Your task to perform on an android device: toggle notification dots Image 0: 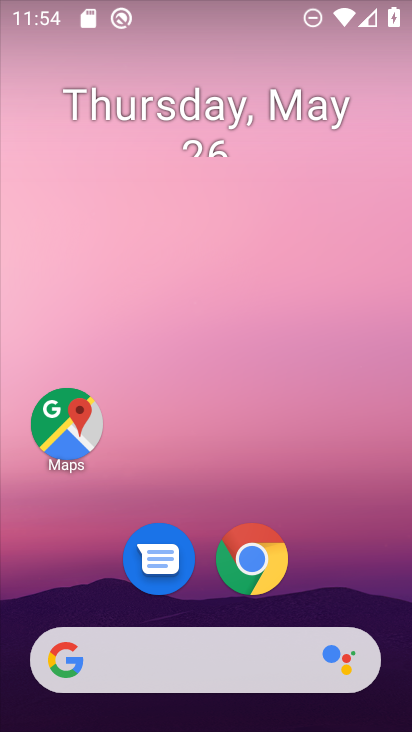
Step 0: drag from (330, 488) to (295, 65)
Your task to perform on an android device: toggle notification dots Image 1: 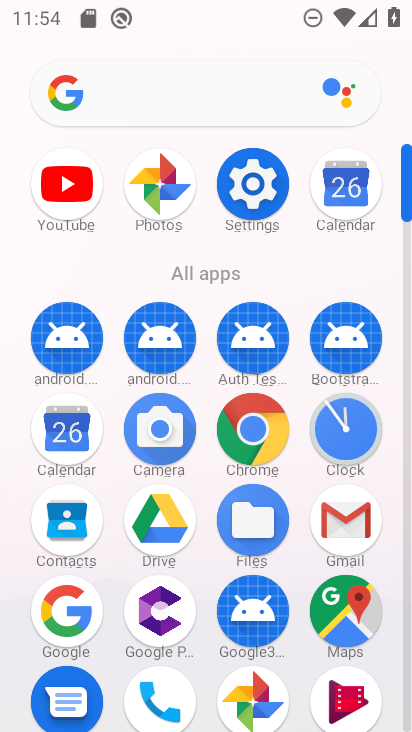
Step 1: click (246, 188)
Your task to perform on an android device: toggle notification dots Image 2: 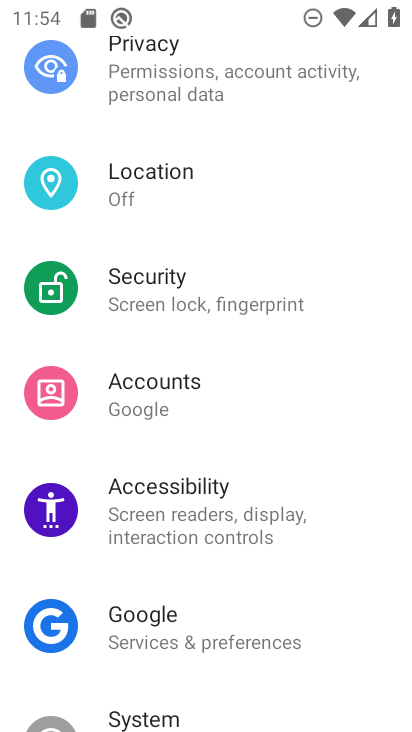
Step 2: drag from (237, 180) to (188, 619)
Your task to perform on an android device: toggle notification dots Image 3: 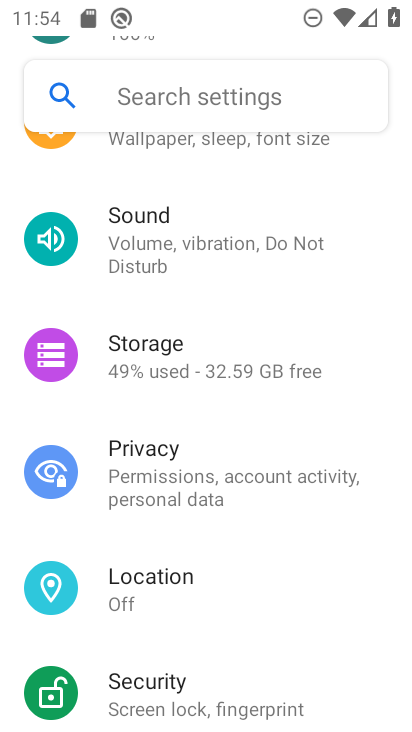
Step 3: drag from (206, 218) to (227, 603)
Your task to perform on an android device: toggle notification dots Image 4: 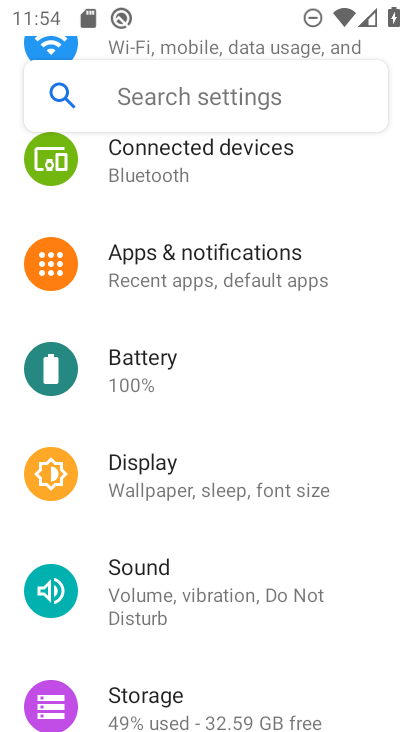
Step 4: click (201, 284)
Your task to perform on an android device: toggle notification dots Image 5: 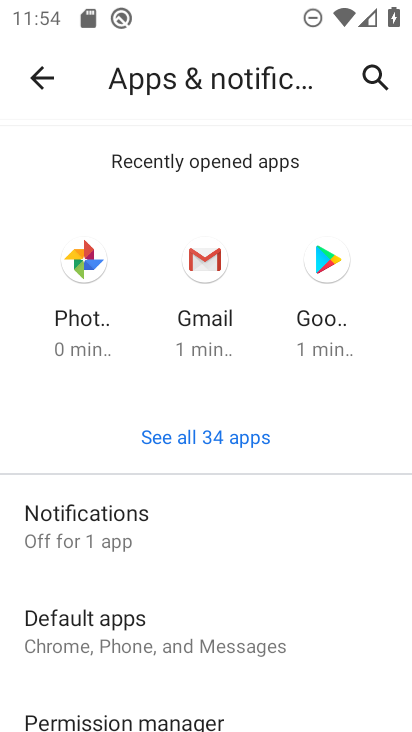
Step 5: drag from (197, 625) to (189, 201)
Your task to perform on an android device: toggle notification dots Image 6: 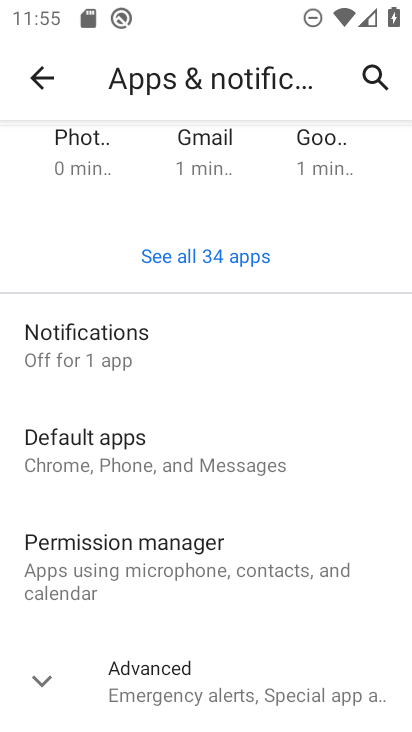
Step 6: click (162, 708)
Your task to perform on an android device: toggle notification dots Image 7: 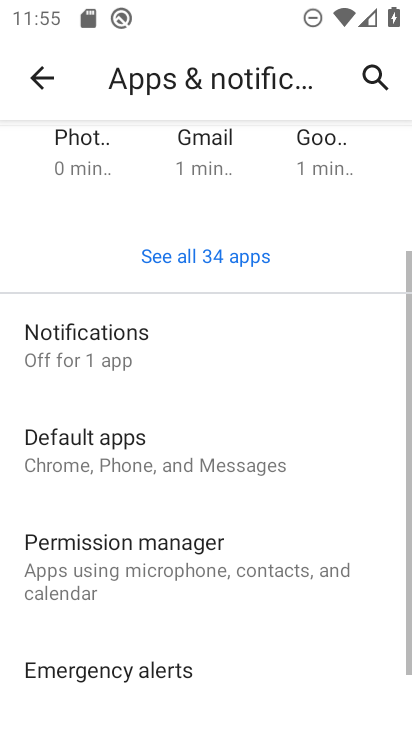
Step 7: drag from (184, 672) to (236, 211)
Your task to perform on an android device: toggle notification dots Image 8: 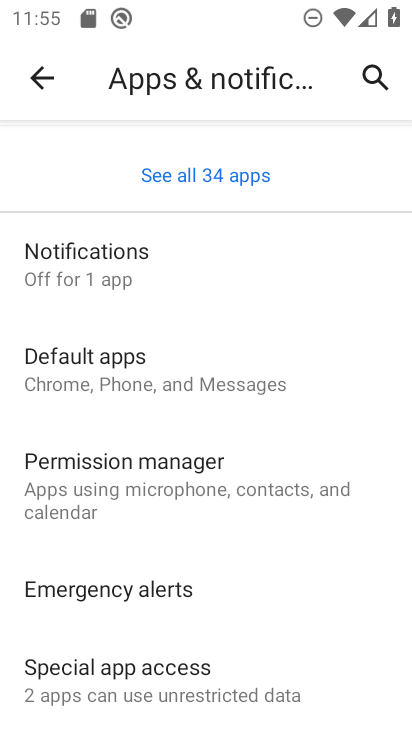
Step 8: click (151, 281)
Your task to perform on an android device: toggle notification dots Image 9: 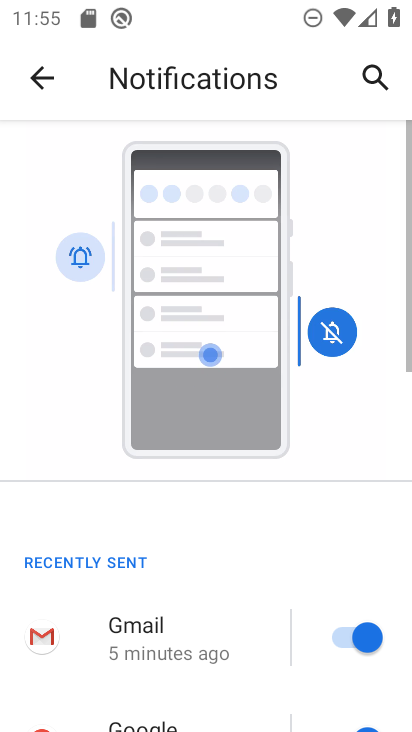
Step 9: drag from (137, 684) to (189, 182)
Your task to perform on an android device: toggle notification dots Image 10: 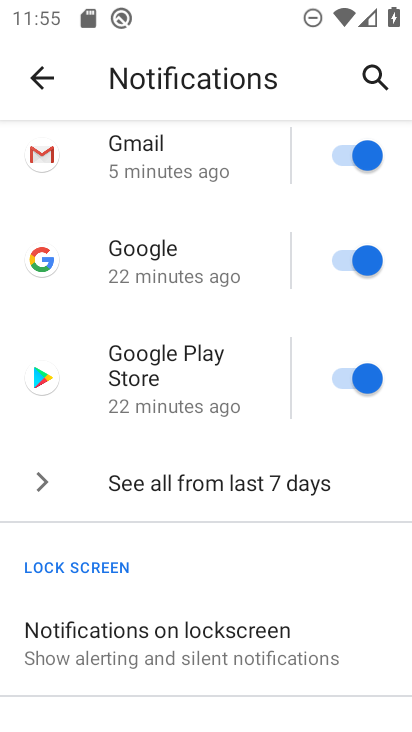
Step 10: drag from (196, 644) to (211, 232)
Your task to perform on an android device: toggle notification dots Image 11: 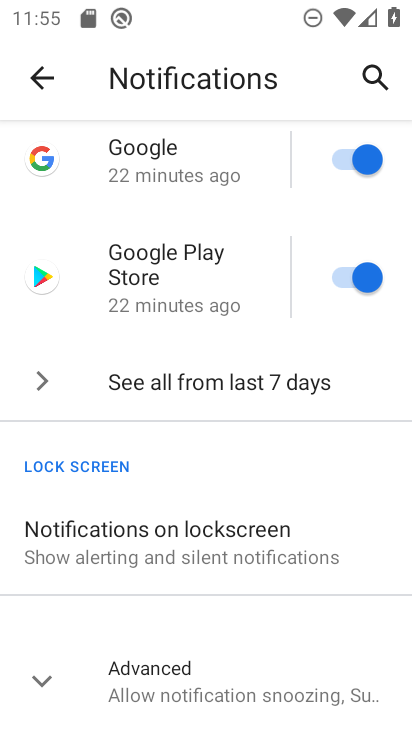
Step 11: click (177, 696)
Your task to perform on an android device: toggle notification dots Image 12: 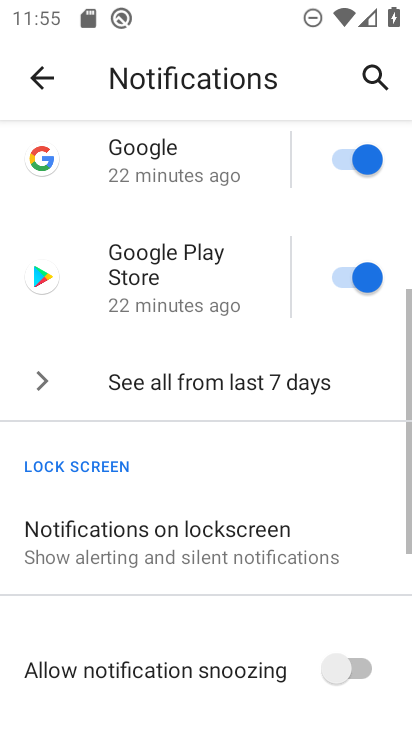
Step 12: drag from (187, 672) to (238, 262)
Your task to perform on an android device: toggle notification dots Image 13: 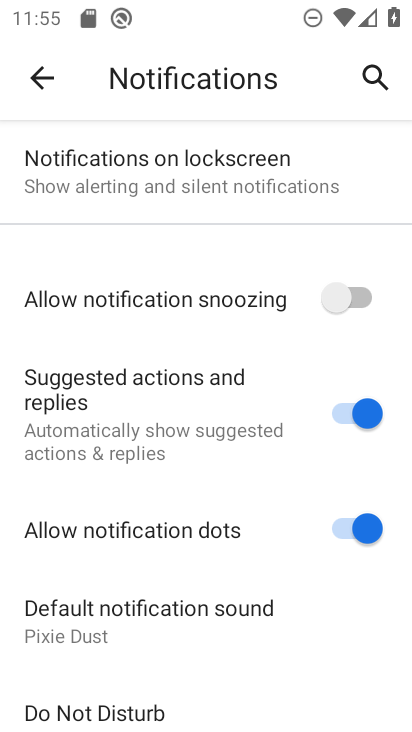
Step 13: click (354, 518)
Your task to perform on an android device: toggle notification dots Image 14: 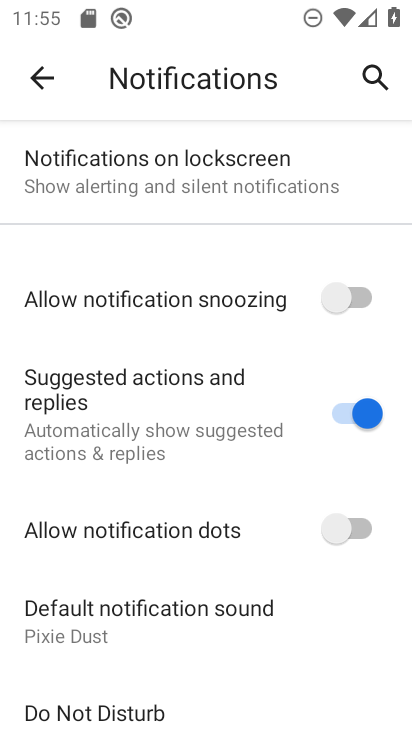
Step 14: task complete